Your task to perform on an android device: find photos in the google photos app Image 0: 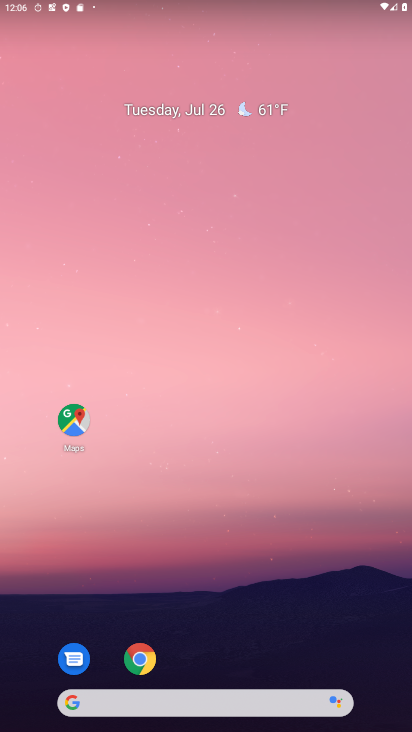
Step 0: drag from (31, 692) to (317, 170)
Your task to perform on an android device: find photos in the google photos app Image 1: 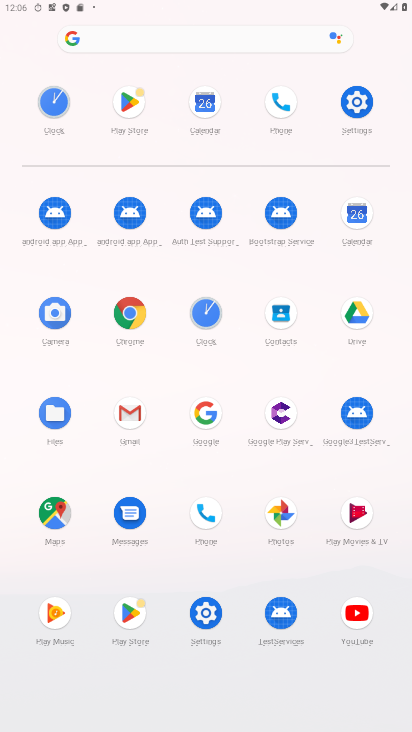
Step 1: click (278, 520)
Your task to perform on an android device: find photos in the google photos app Image 2: 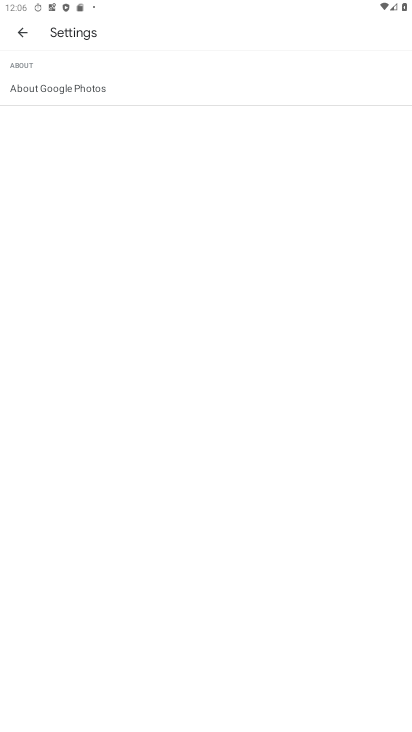
Step 2: click (19, 31)
Your task to perform on an android device: find photos in the google photos app Image 3: 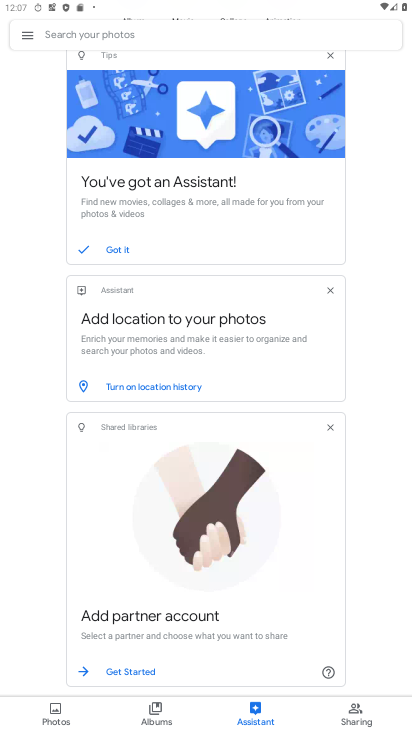
Step 3: click (51, 724)
Your task to perform on an android device: find photos in the google photos app Image 4: 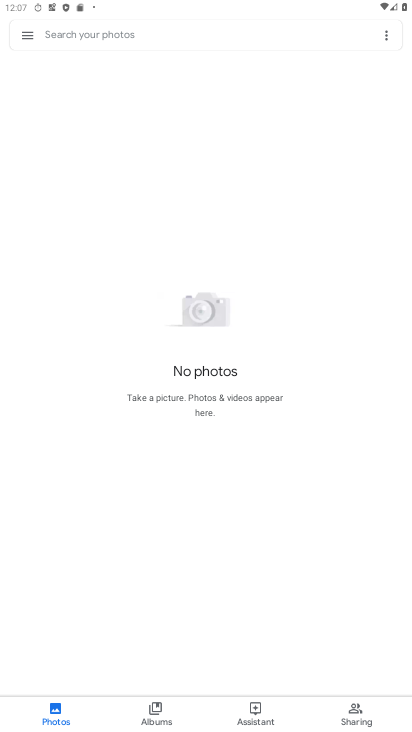
Step 4: task complete